Your task to perform on an android device: turn off notifications in google photos Image 0: 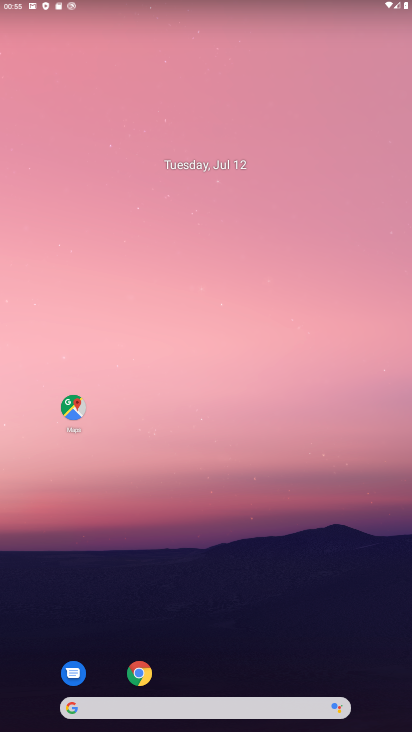
Step 0: press home button
Your task to perform on an android device: turn off notifications in google photos Image 1: 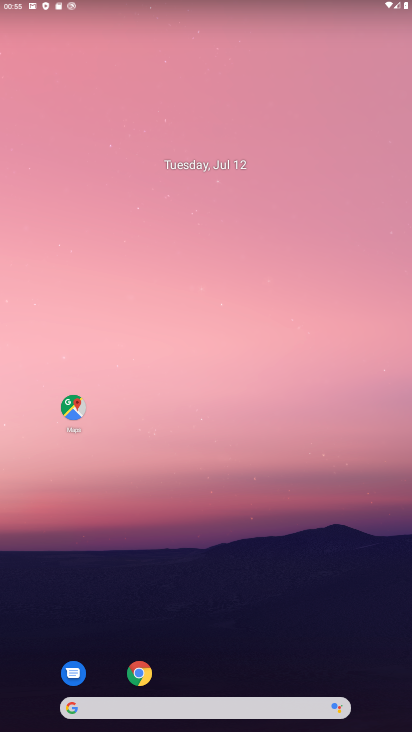
Step 1: drag from (272, 581) to (243, 29)
Your task to perform on an android device: turn off notifications in google photos Image 2: 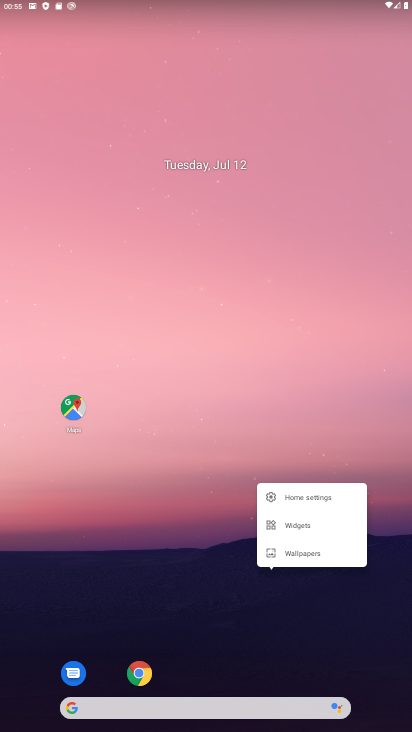
Step 2: drag from (227, 587) to (205, 7)
Your task to perform on an android device: turn off notifications in google photos Image 3: 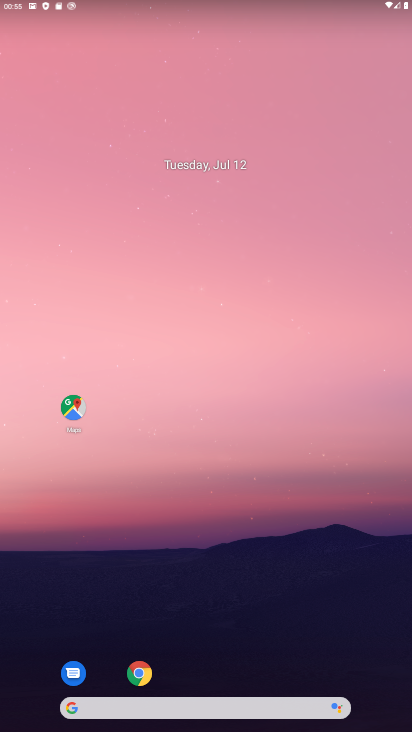
Step 3: drag from (242, 605) to (263, 1)
Your task to perform on an android device: turn off notifications in google photos Image 4: 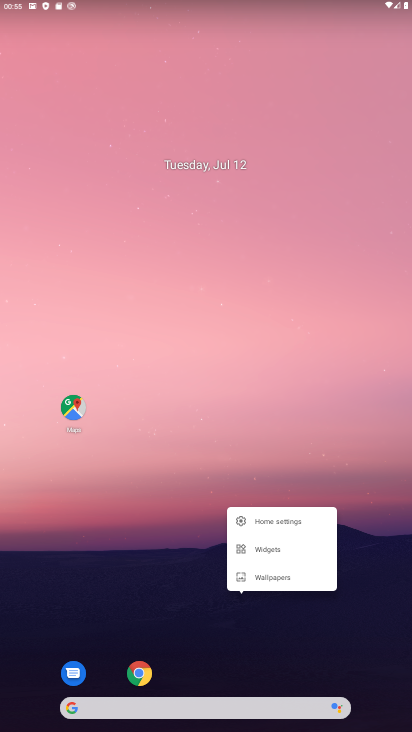
Step 4: drag from (148, 564) to (243, 38)
Your task to perform on an android device: turn off notifications in google photos Image 5: 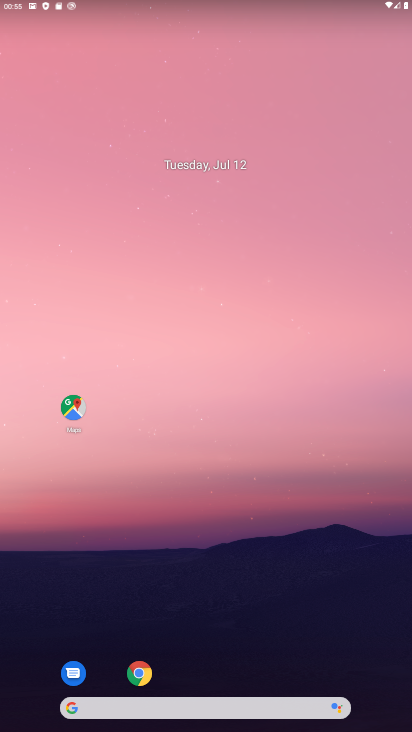
Step 5: drag from (230, 679) to (226, 64)
Your task to perform on an android device: turn off notifications in google photos Image 6: 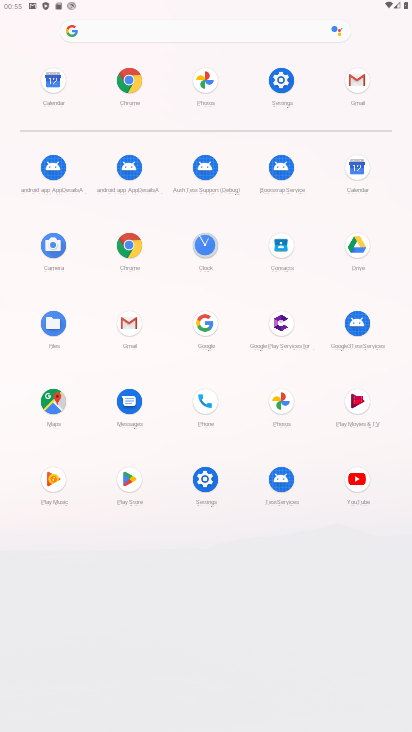
Step 6: click (280, 395)
Your task to perform on an android device: turn off notifications in google photos Image 7: 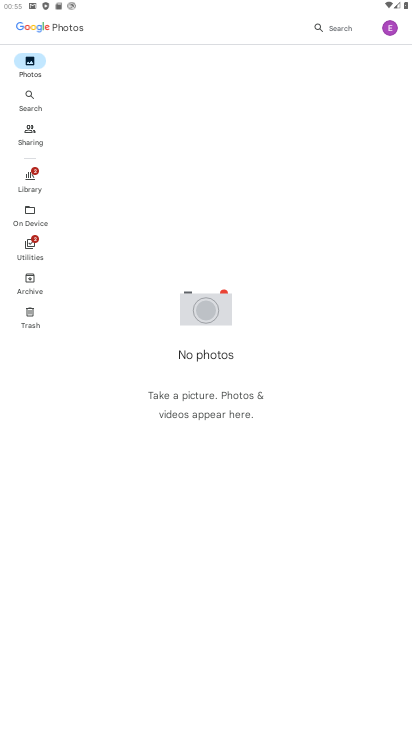
Step 7: click (390, 29)
Your task to perform on an android device: turn off notifications in google photos Image 8: 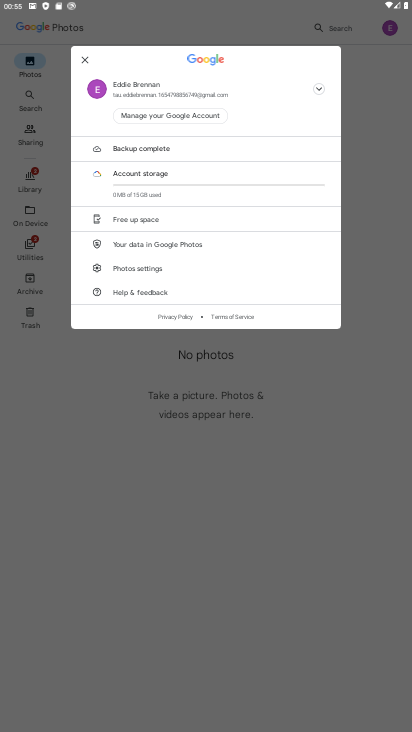
Step 8: click (138, 265)
Your task to perform on an android device: turn off notifications in google photos Image 9: 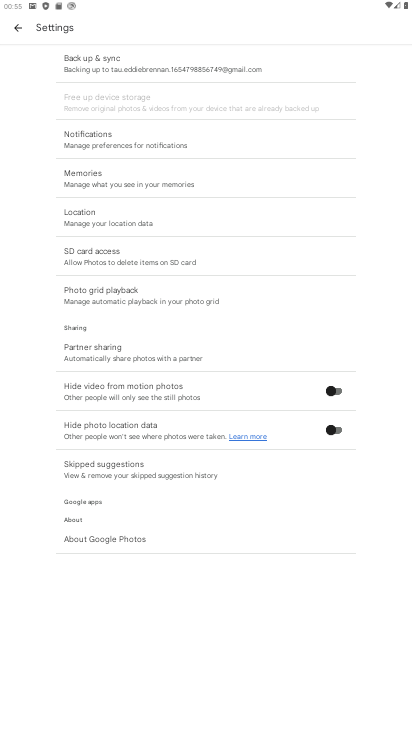
Step 9: click (121, 148)
Your task to perform on an android device: turn off notifications in google photos Image 10: 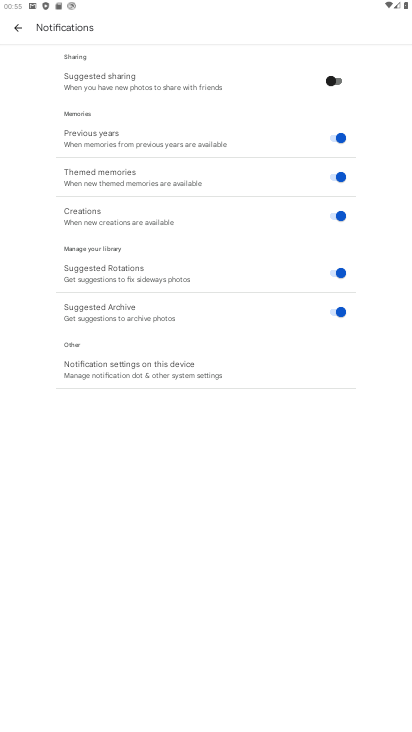
Step 10: click (152, 370)
Your task to perform on an android device: turn off notifications in google photos Image 11: 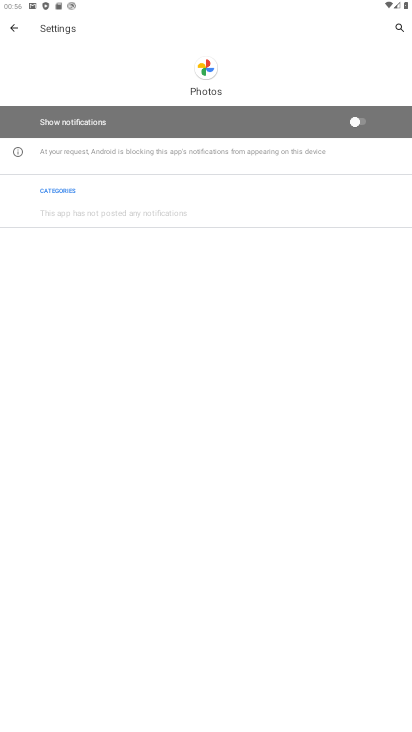
Step 11: task complete